Your task to perform on an android device: turn notification dots on Image 0: 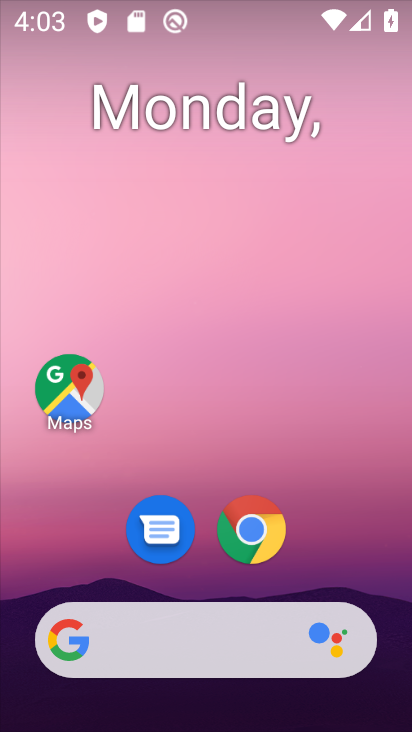
Step 0: drag from (237, 490) to (327, 15)
Your task to perform on an android device: turn notification dots on Image 1: 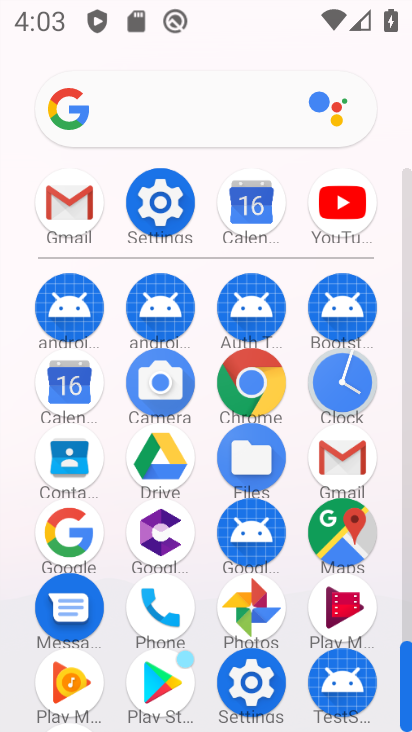
Step 1: click (157, 217)
Your task to perform on an android device: turn notification dots on Image 2: 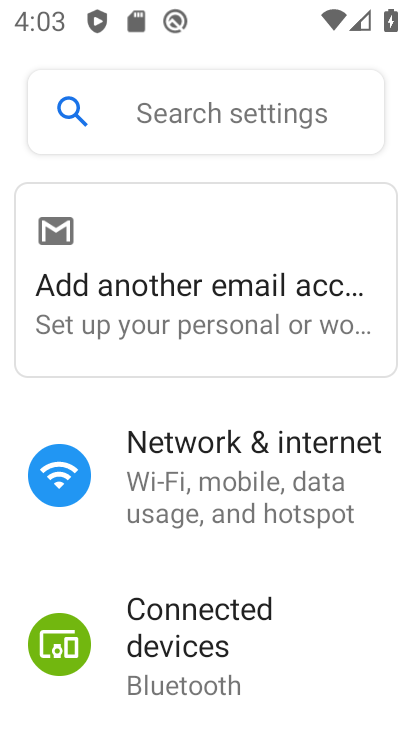
Step 2: drag from (284, 585) to (315, 119)
Your task to perform on an android device: turn notification dots on Image 3: 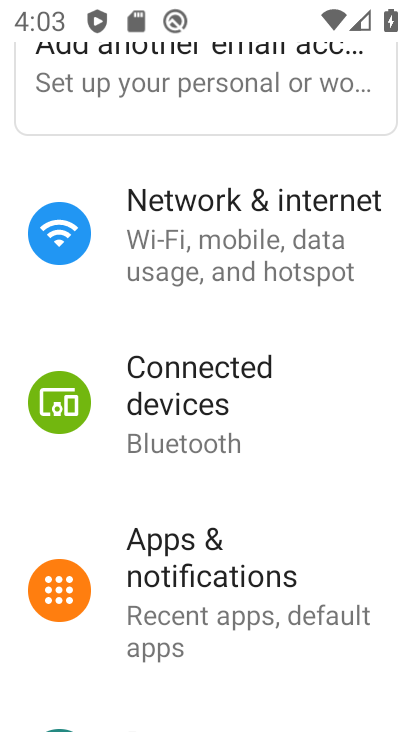
Step 3: click (205, 584)
Your task to perform on an android device: turn notification dots on Image 4: 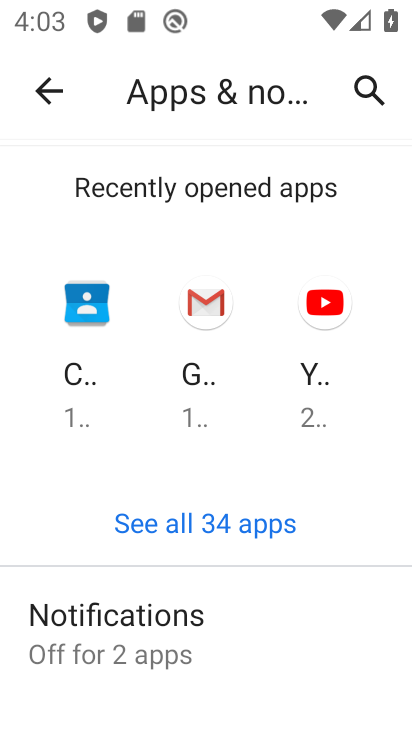
Step 4: click (144, 634)
Your task to perform on an android device: turn notification dots on Image 5: 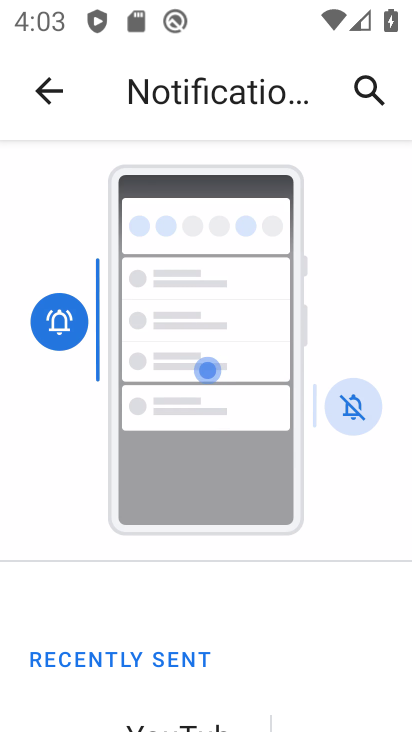
Step 5: drag from (231, 592) to (254, 49)
Your task to perform on an android device: turn notification dots on Image 6: 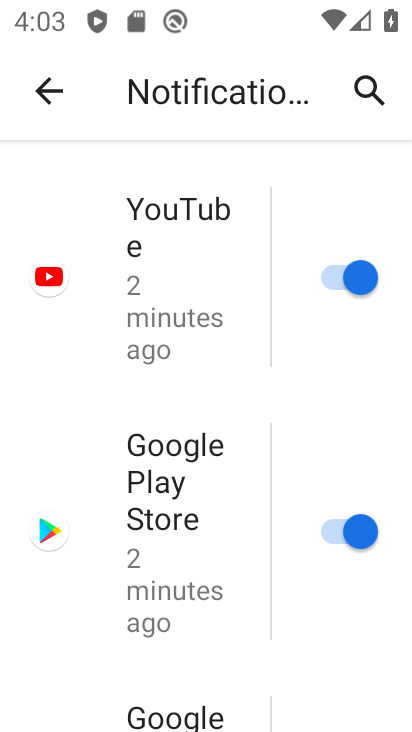
Step 6: drag from (291, 406) to (358, 162)
Your task to perform on an android device: turn notification dots on Image 7: 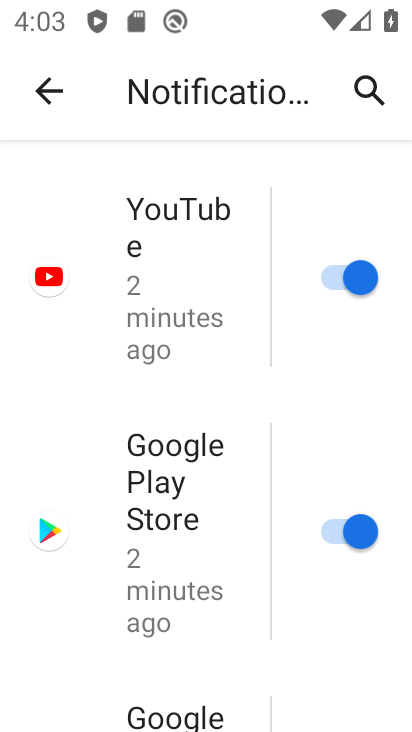
Step 7: drag from (289, 660) to (312, 167)
Your task to perform on an android device: turn notification dots on Image 8: 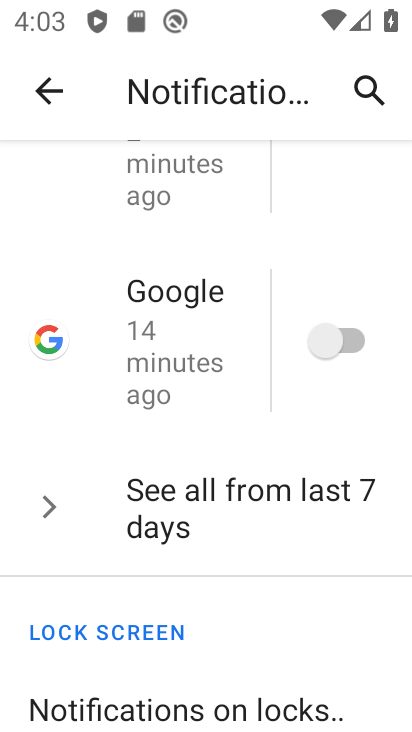
Step 8: drag from (234, 648) to (269, 33)
Your task to perform on an android device: turn notification dots on Image 9: 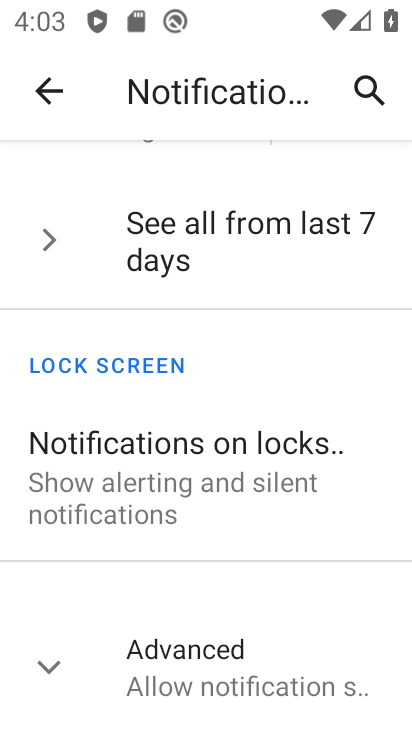
Step 9: click (233, 648)
Your task to perform on an android device: turn notification dots on Image 10: 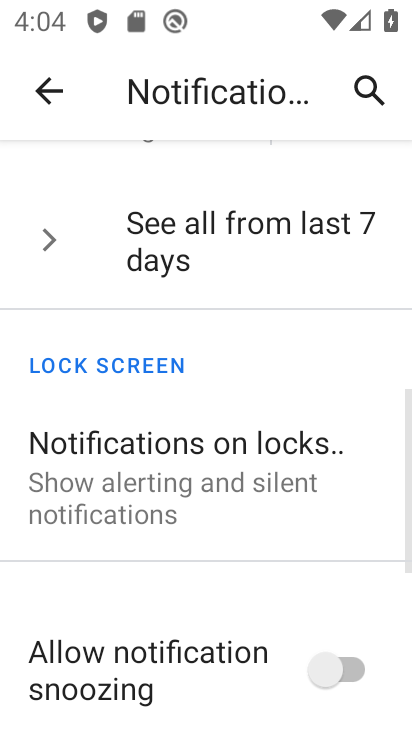
Step 10: task complete